Your task to perform on an android device: change keyboard looks Image 0: 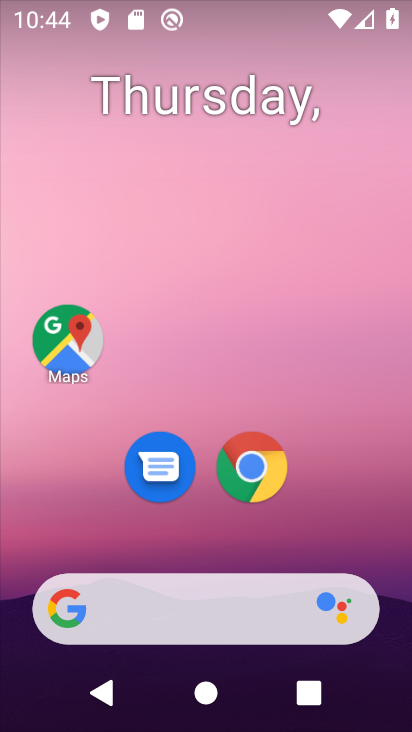
Step 0: drag from (205, 499) to (252, 222)
Your task to perform on an android device: change keyboard looks Image 1: 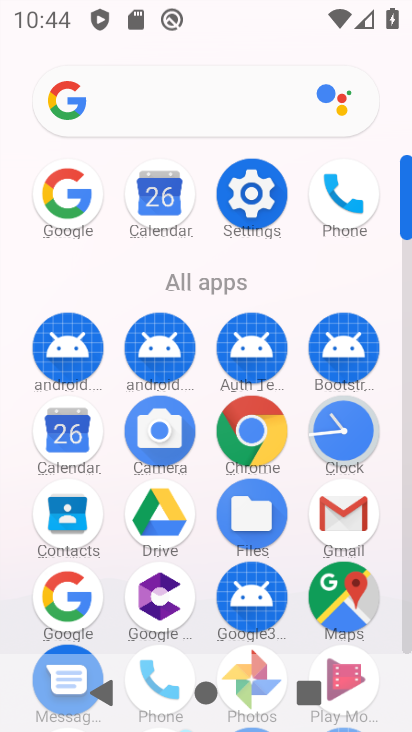
Step 1: click (250, 193)
Your task to perform on an android device: change keyboard looks Image 2: 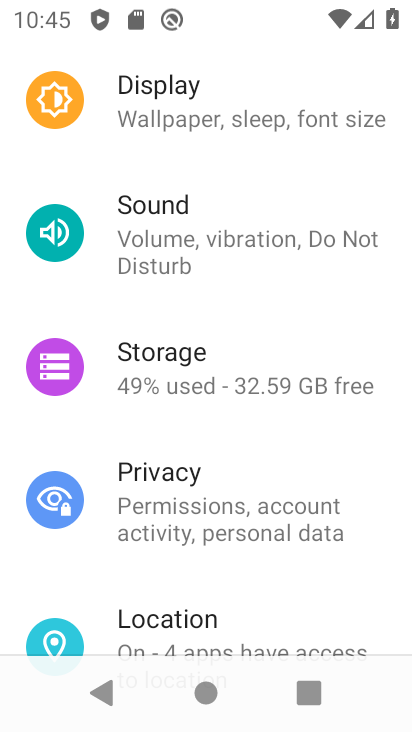
Step 2: drag from (250, 594) to (302, 298)
Your task to perform on an android device: change keyboard looks Image 3: 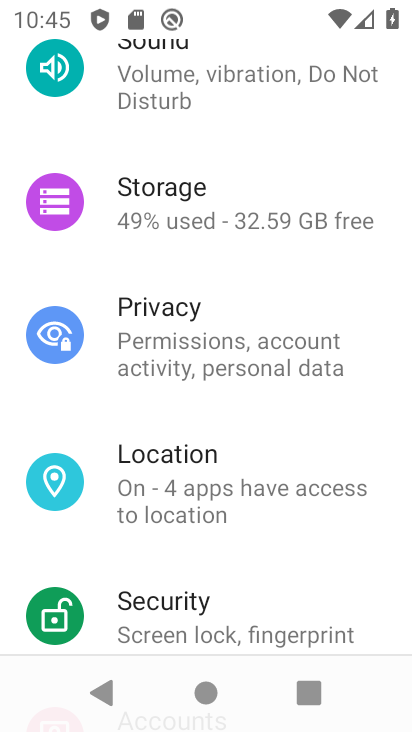
Step 3: drag from (239, 546) to (273, 254)
Your task to perform on an android device: change keyboard looks Image 4: 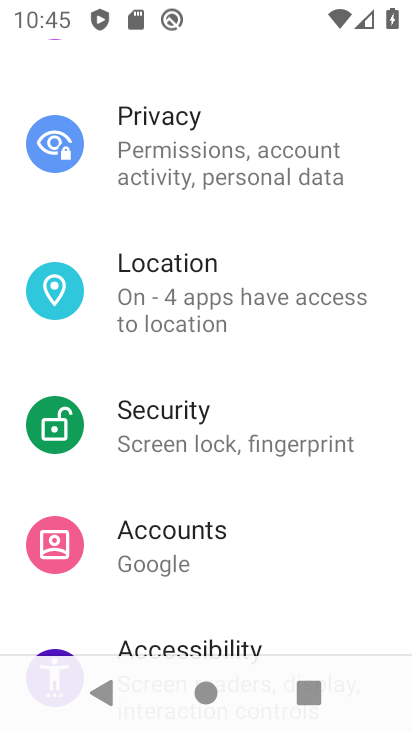
Step 4: drag from (155, 618) to (250, 322)
Your task to perform on an android device: change keyboard looks Image 5: 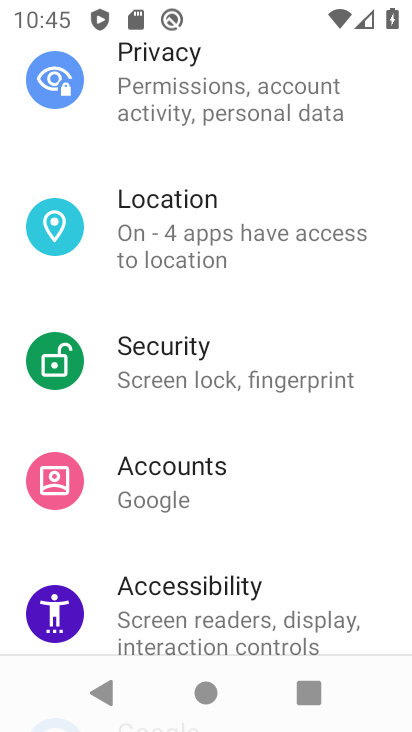
Step 5: drag from (197, 593) to (314, 193)
Your task to perform on an android device: change keyboard looks Image 6: 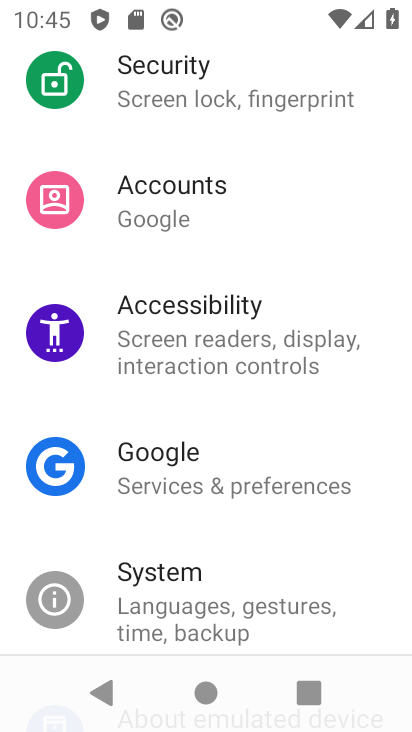
Step 6: drag from (161, 560) to (264, 267)
Your task to perform on an android device: change keyboard looks Image 7: 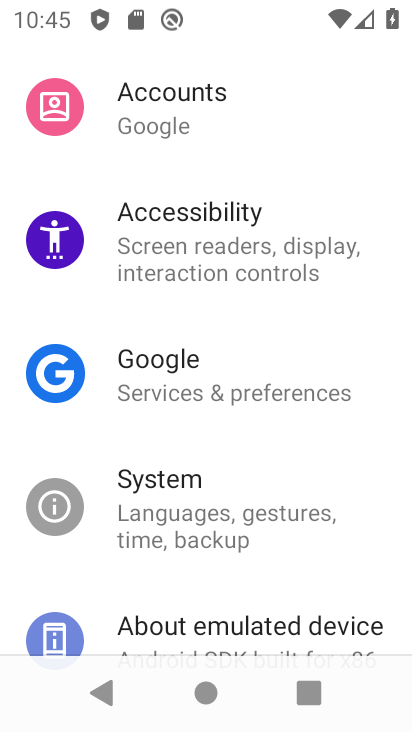
Step 7: click (209, 514)
Your task to perform on an android device: change keyboard looks Image 8: 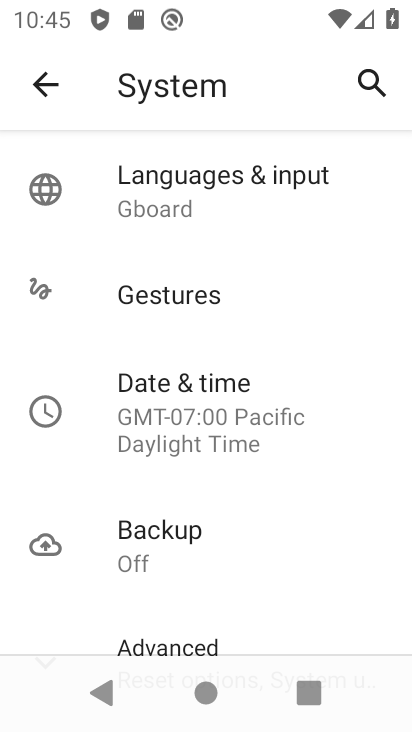
Step 8: click (211, 204)
Your task to perform on an android device: change keyboard looks Image 9: 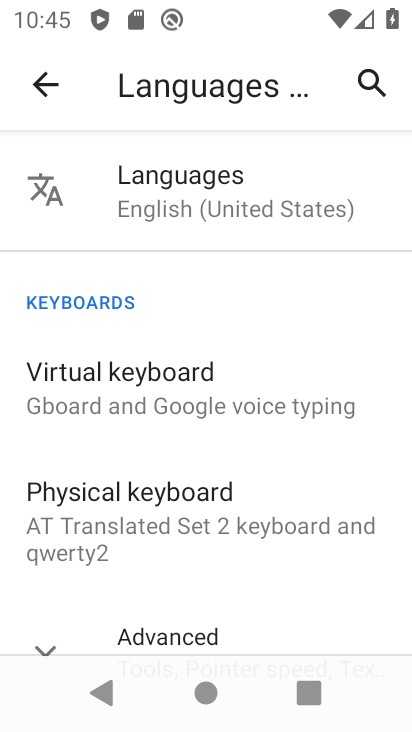
Step 9: click (198, 396)
Your task to perform on an android device: change keyboard looks Image 10: 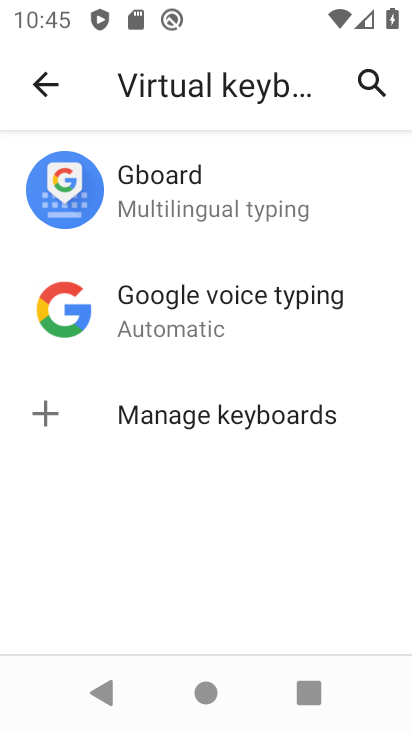
Step 10: task complete